Your task to perform on an android device: toggle location history Image 0: 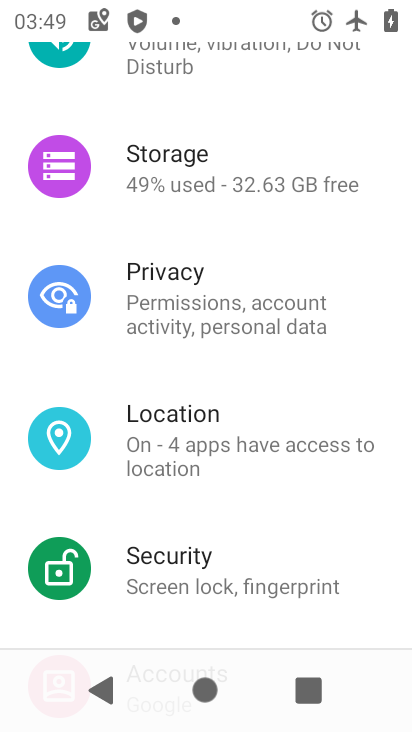
Step 0: click (297, 418)
Your task to perform on an android device: toggle location history Image 1: 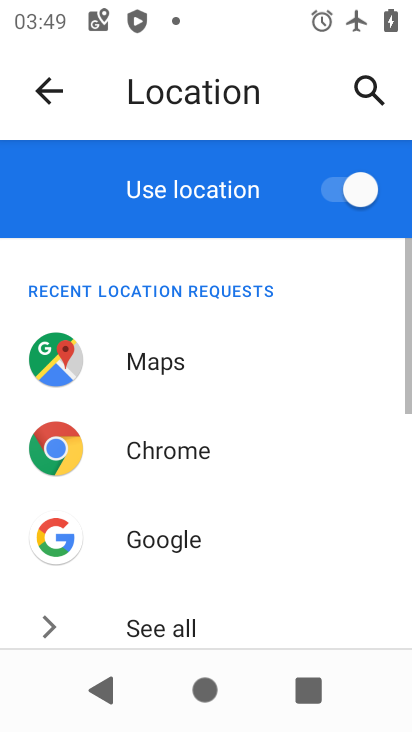
Step 1: drag from (248, 567) to (254, 210)
Your task to perform on an android device: toggle location history Image 2: 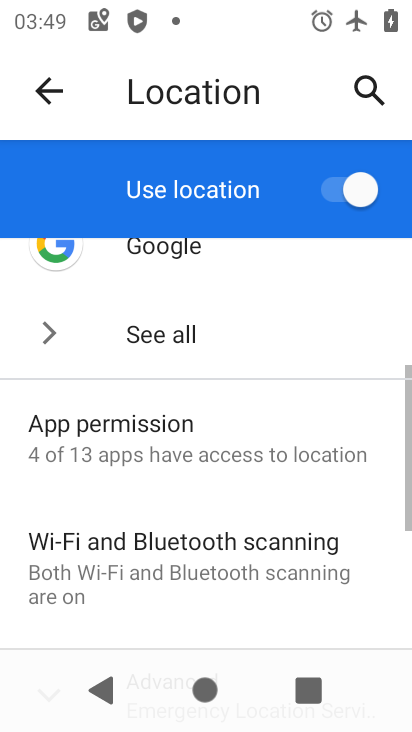
Step 2: drag from (294, 537) to (245, 294)
Your task to perform on an android device: toggle location history Image 3: 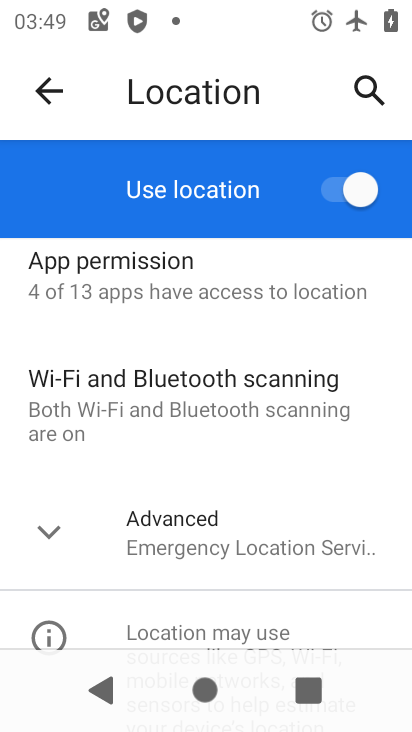
Step 3: click (243, 541)
Your task to perform on an android device: toggle location history Image 4: 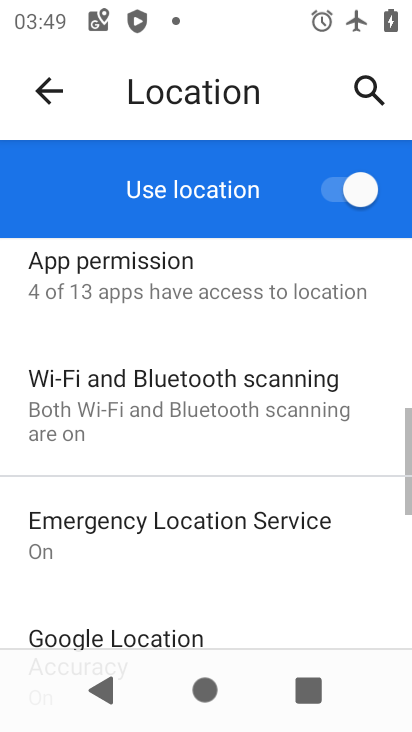
Step 4: drag from (252, 602) to (255, 326)
Your task to perform on an android device: toggle location history Image 5: 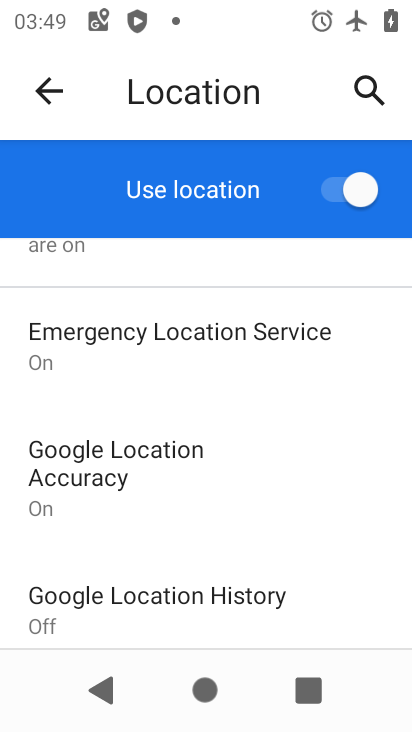
Step 5: click (259, 591)
Your task to perform on an android device: toggle location history Image 6: 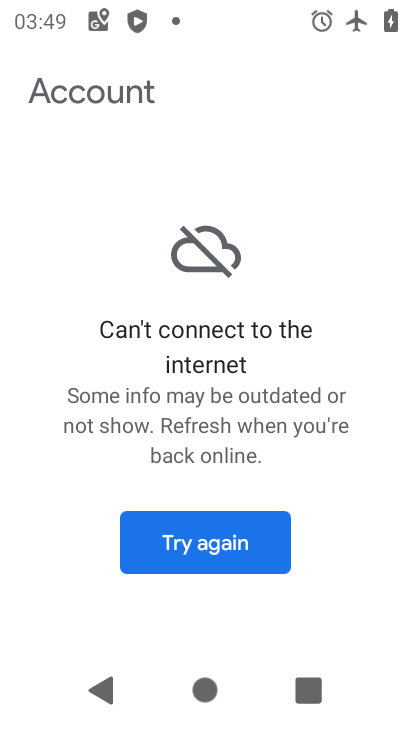
Step 6: task complete